Your task to perform on an android device: delete browsing data in the chrome app Image 0: 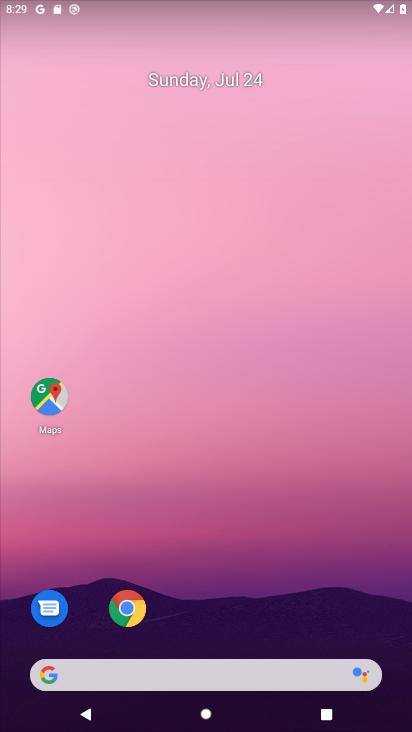
Step 0: click (131, 613)
Your task to perform on an android device: delete browsing data in the chrome app Image 1: 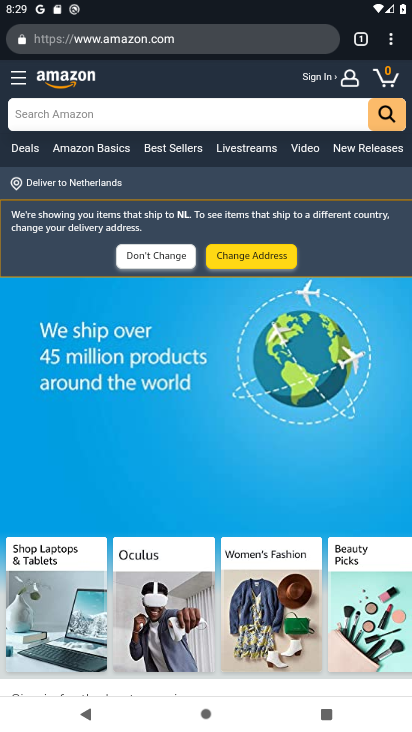
Step 1: click (398, 34)
Your task to perform on an android device: delete browsing data in the chrome app Image 2: 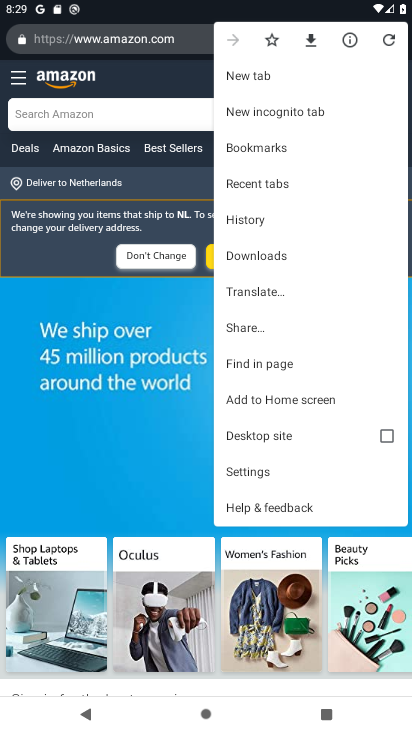
Step 2: click (261, 229)
Your task to perform on an android device: delete browsing data in the chrome app Image 3: 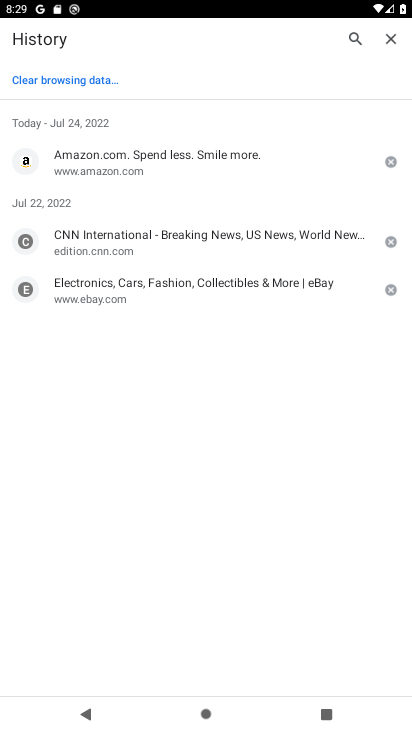
Step 3: click (58, 76)
Your task to perform on an android device: delete browsing data in the chrome app Image 4: 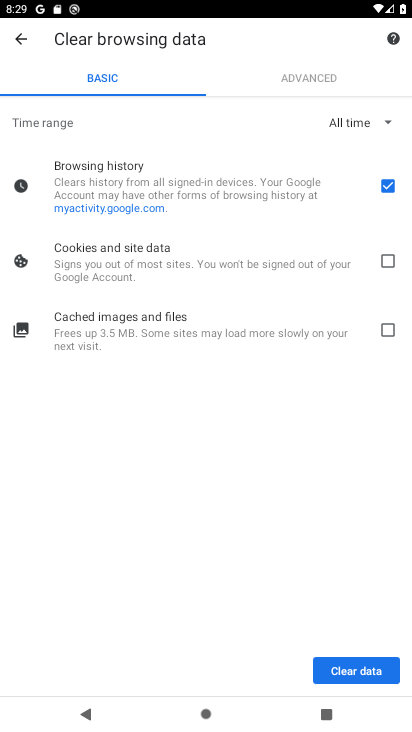
Step 4: click (367, 674)
Your task to perform on an android device: delete browsing data in the chrome app Image 5: 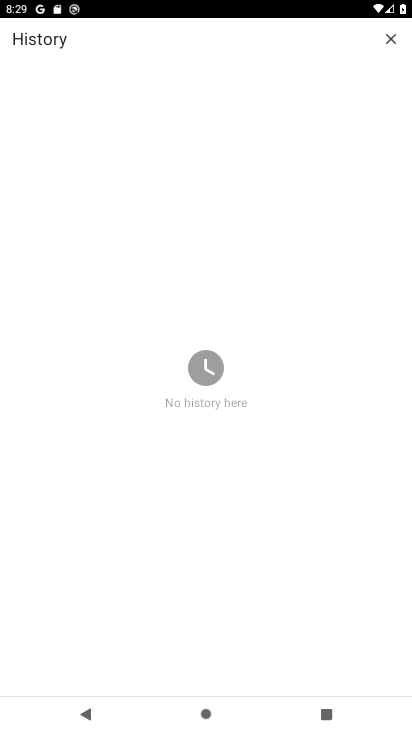
Step 5: task complete